Your task to perform on an android device: turn on improve location accuracy Image 0: 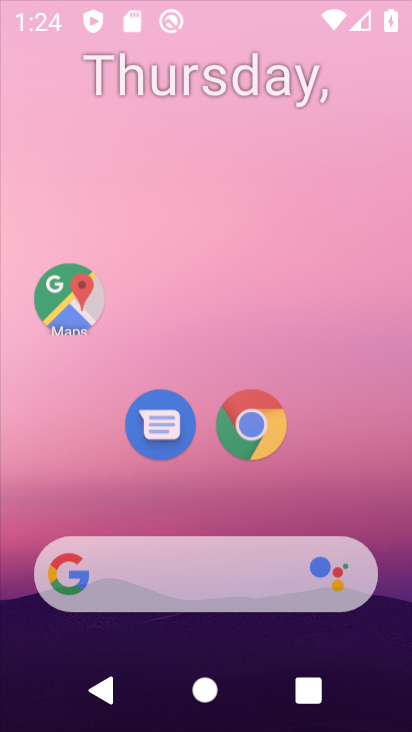
Step 0: press home button
Your task to perform on an android device: turn on improve location accuracy Image 1: 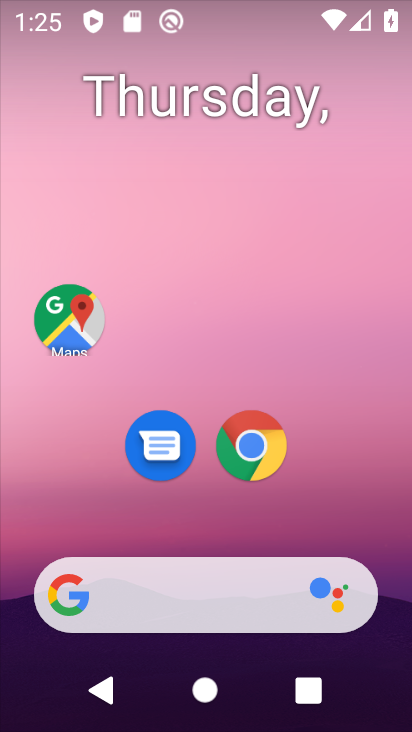
Step 1: drag from (35, 644) to (314, 181)
Your task to perform on an android device: turn on improve location accuracy Image 2: 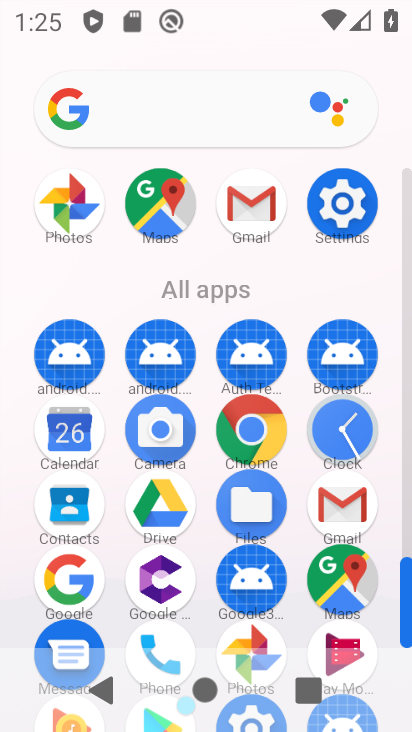
Step 2: click (328, 211)
Your task to perform on an android device: turn on improve location accuracy Image 3: 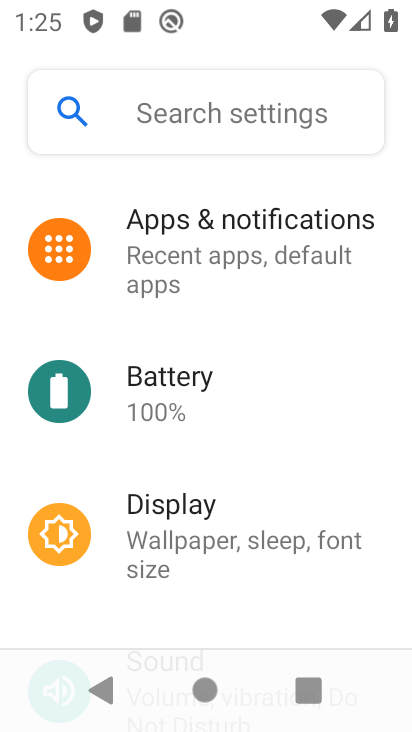
Step 3: drag from (12, 594) to (312, 190)
Your task to perform on an android device: turn on improve location accuracy Image 4: 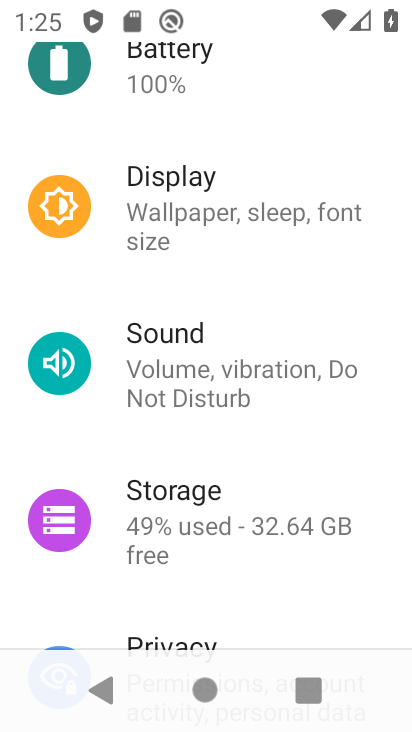
Step 4: drag from (2, 622) to (250, 314)
Your task to perform on an android device: turn on improve location accuracy Image 5: 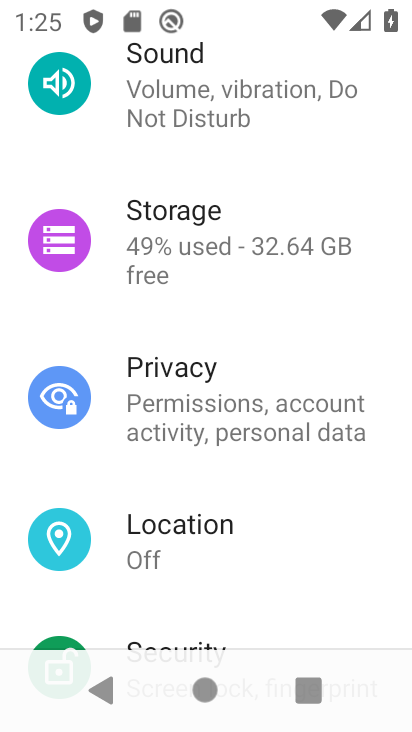
Step 5: click (185, 550)
Your task to perform on an android device: turn on improve location accuracy Image 6: 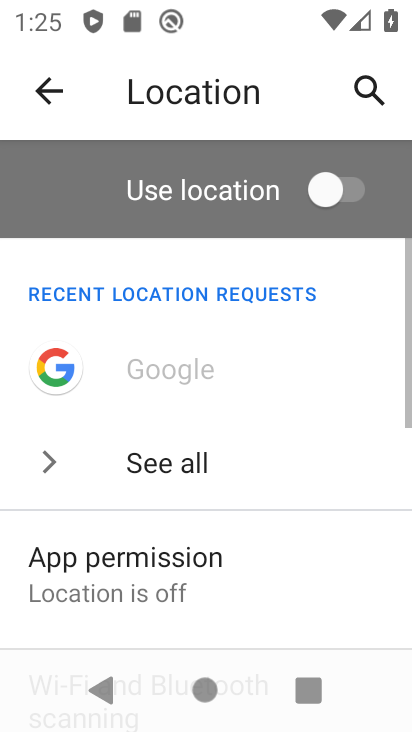
Step 6: drag from (29, 583) to (260, 276)
Your task to perform on an android device: turn on improve location accuracy Image 7: 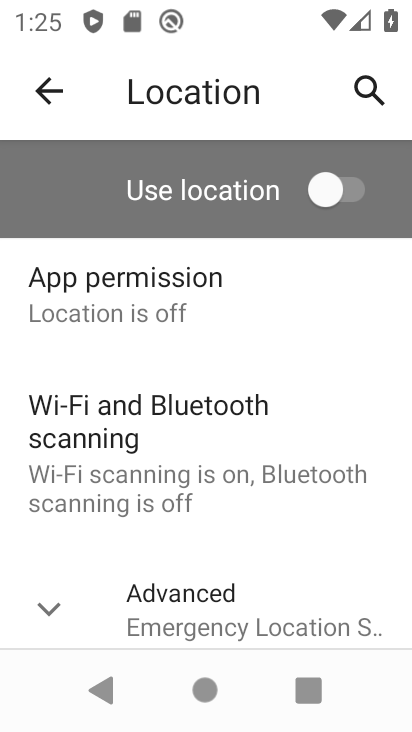
Step 7: click (102, 614)
Your task to perform on an android device: turn on improve location accuracy Image 8: 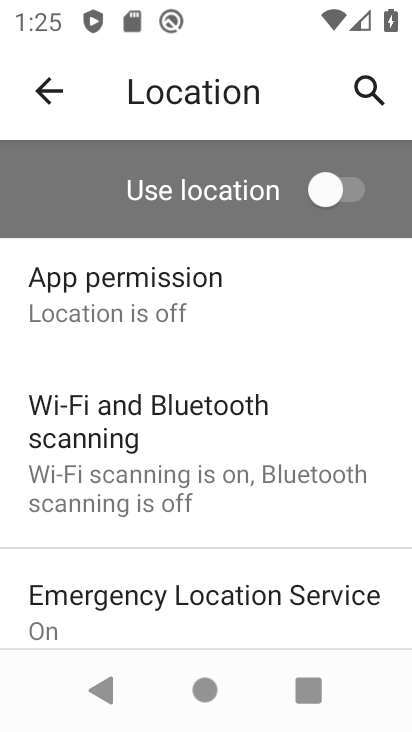
Step 8: drag from (7, 565) to (209, 252)
Your task to perform on an android device: turn on improve location accuracy Image 9: 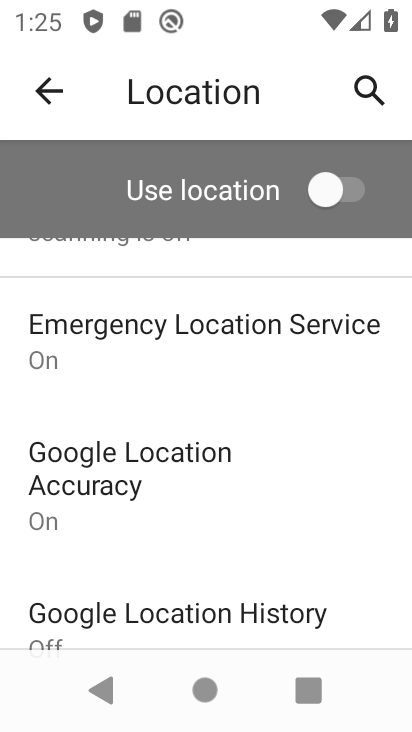
Step 9: click (195, 481)
Your task to perform on an android device: turn on improve location accuracy Image 10: 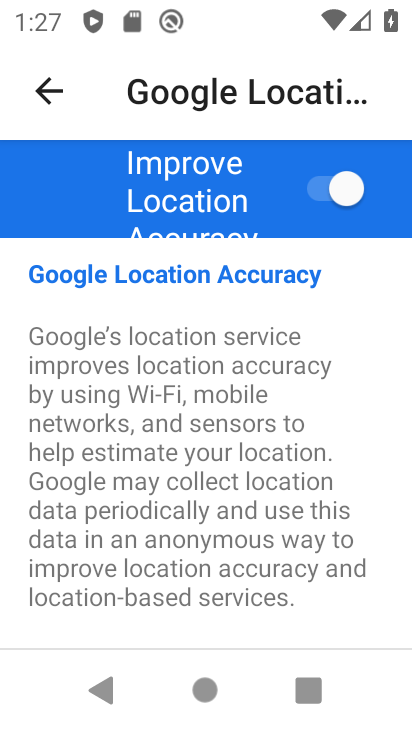
Step 10: task complete